Your task to perform on an android device: turn on javascript in the chrome app Image 0: 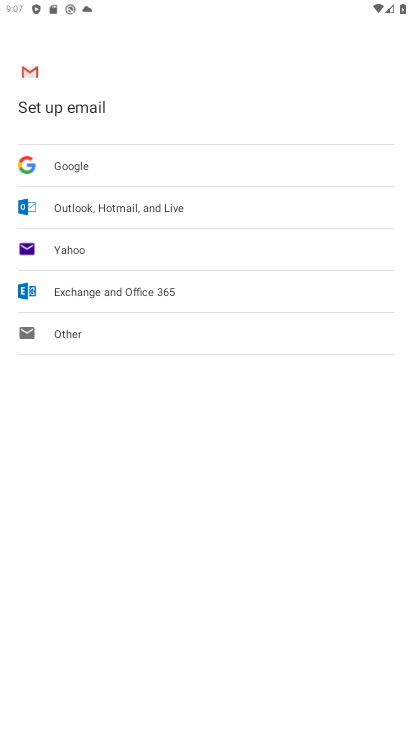
Step 0: press home button
Your task to perform on an android device: turn on javascript in the chrome app Image 1: 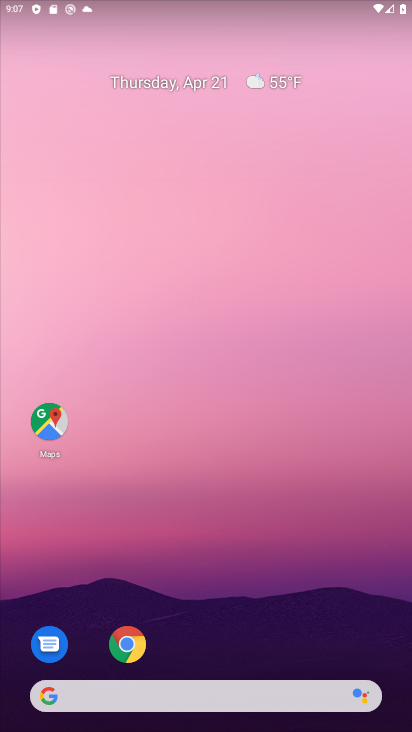
Step 1: click (121, 636)
Your task to perform on an android device: turn on javascript in the chrome app Image 2: 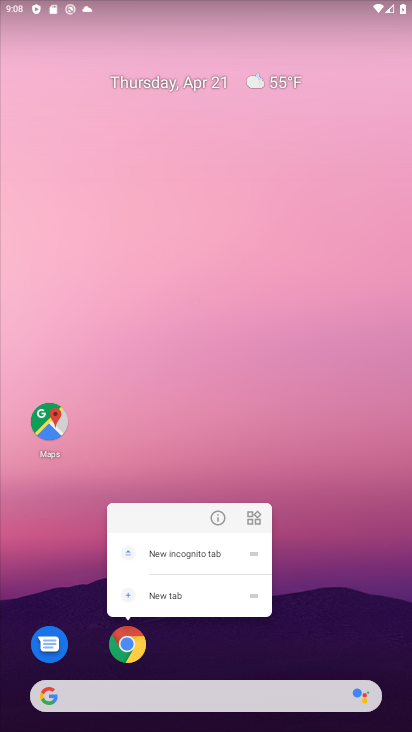
Step 2: click (128, 639)
Your task to perform on an android device: turn on javascript in the chrome app Image 3: 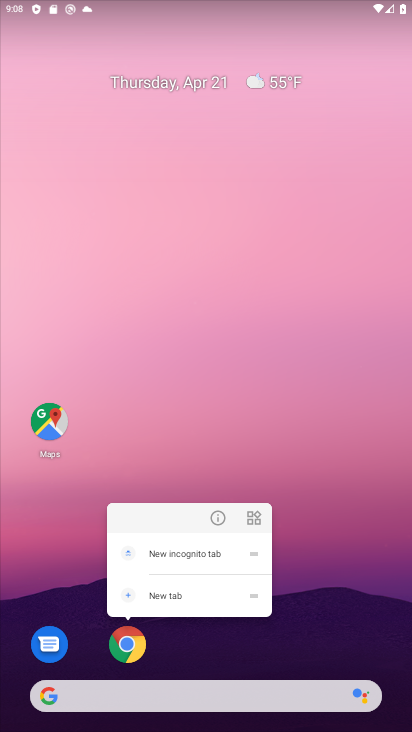
Step 3: click (217, 521)
Your task to perform on an android device: turn on javascript in the chrome app Image 4: 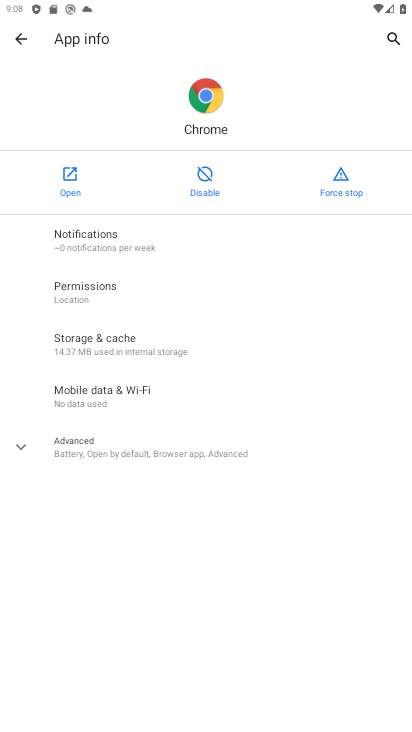
Step 4: click (70, 181)
Your task to perform on an android device: turn on javascript in the chrome app Image 5: 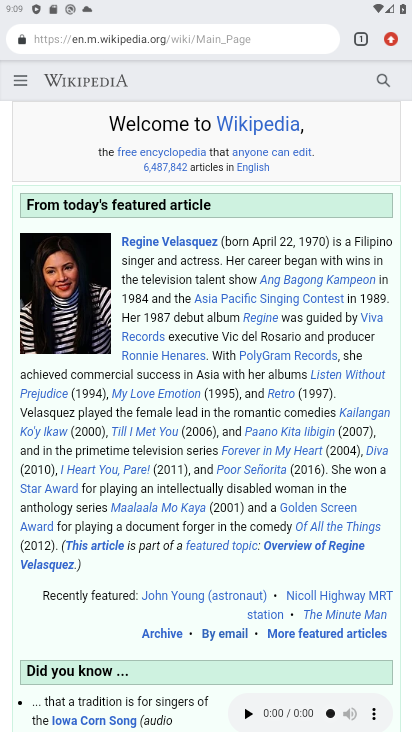
Step 5: click (391, 36)
Your task to perform on an android device: turn on javascript in the chrome app Image 6: 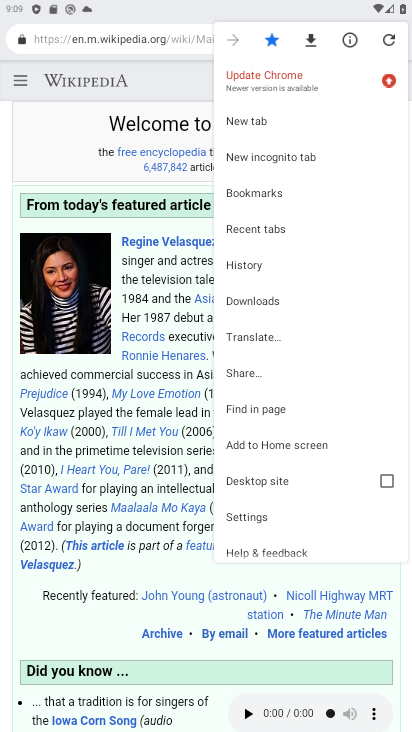
Step 6: click (268, 521)
Your task to perform on an android device: turn on javascript in the chrome app Image 7: 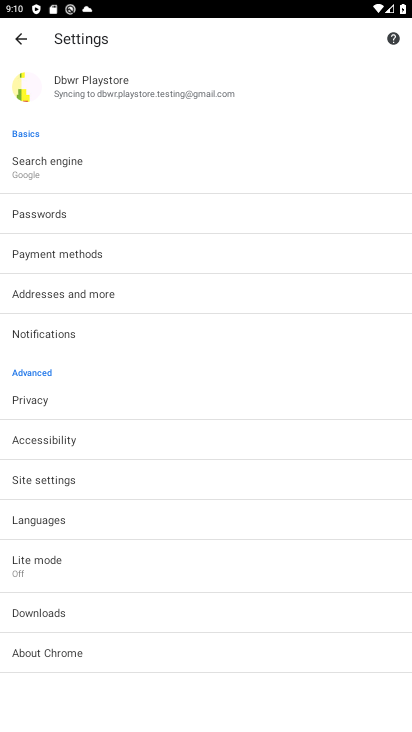
Step 7: click (106, 483)
Your task to perform on an android device: turn on javascript in the chrome app Image 8: 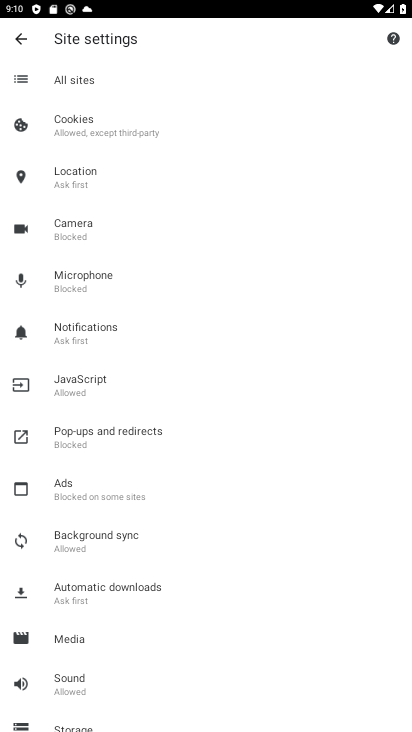
Step 8: task complete